Your task to perform on an android device: Set the phone to "Do not disturb". Image 0: 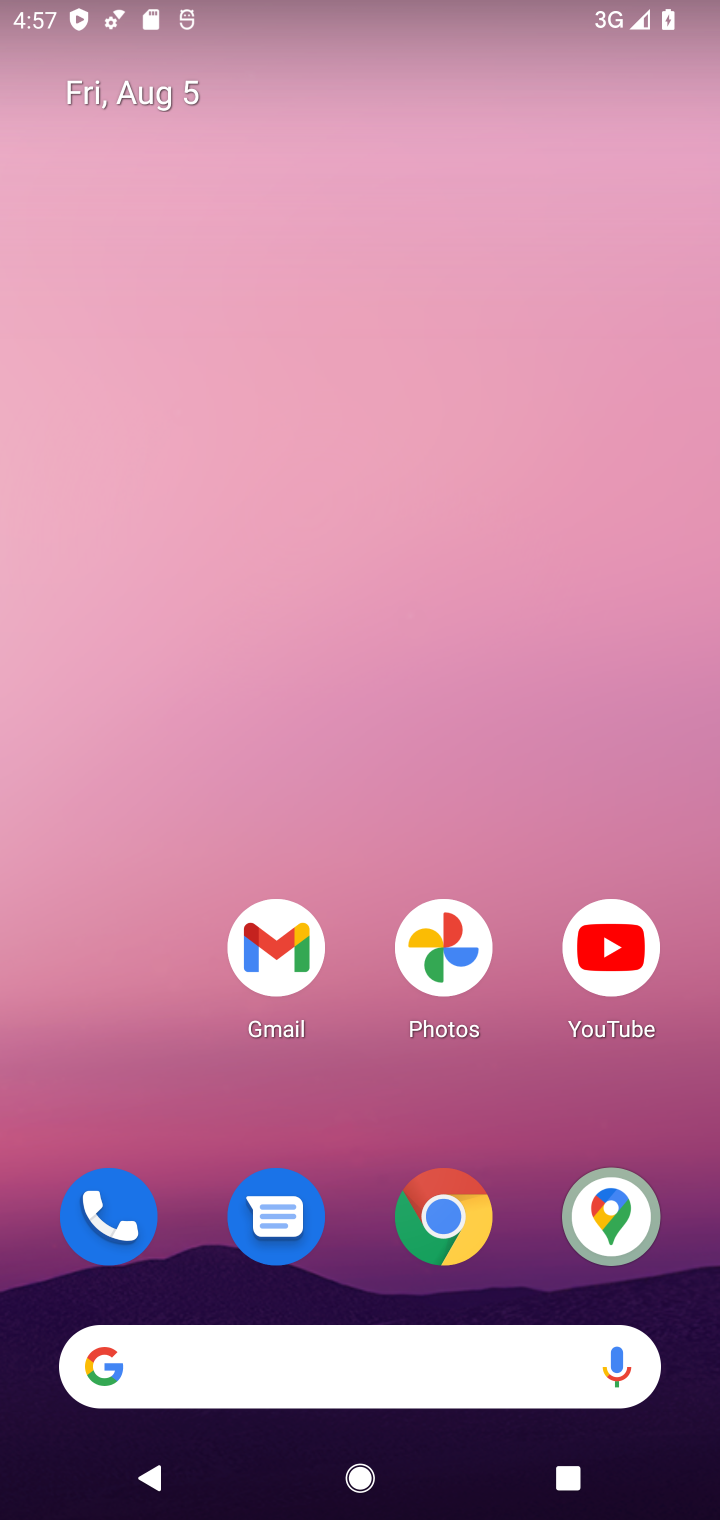
Step 0: drag from (521, 607) to (424, 29)
Your task to perform on an android device: Set the phone to "Do not disturb". Image 1: 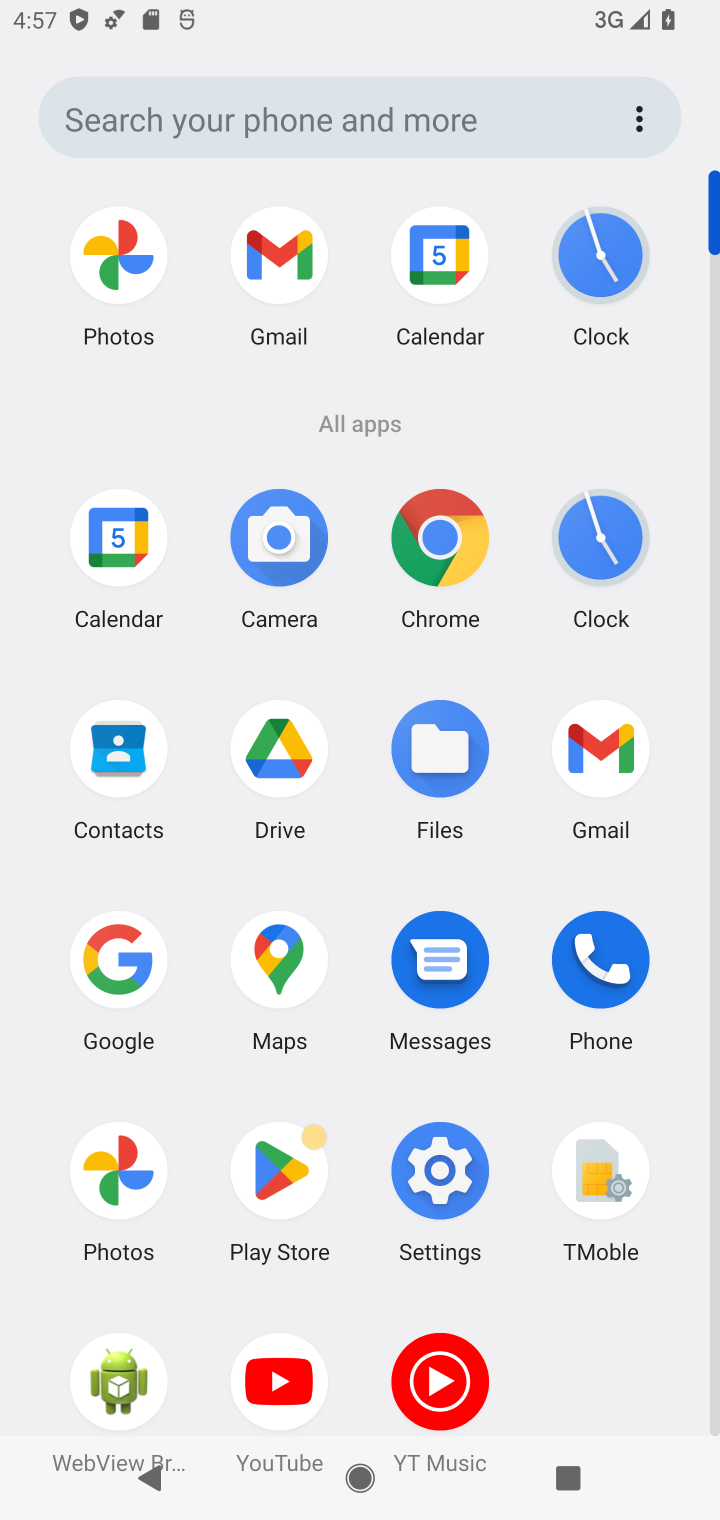
Step 1: click (417, 1172)
Your task to perform on an android device: Set the phone to "Do not disturb". Image 2: 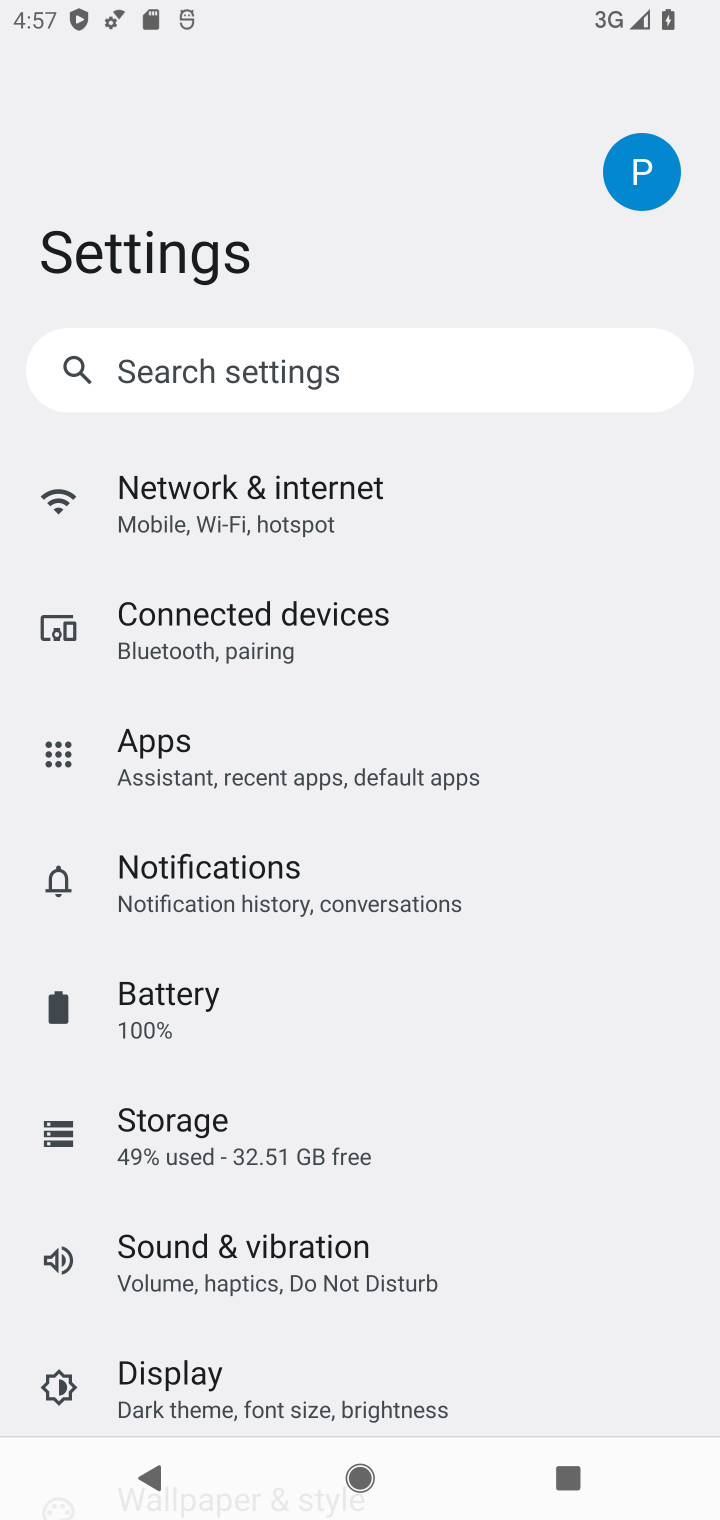
Step 2: click (238, 1262)
Your task to perform on an android device: Set the phone to "Do not disturb". Image 3: 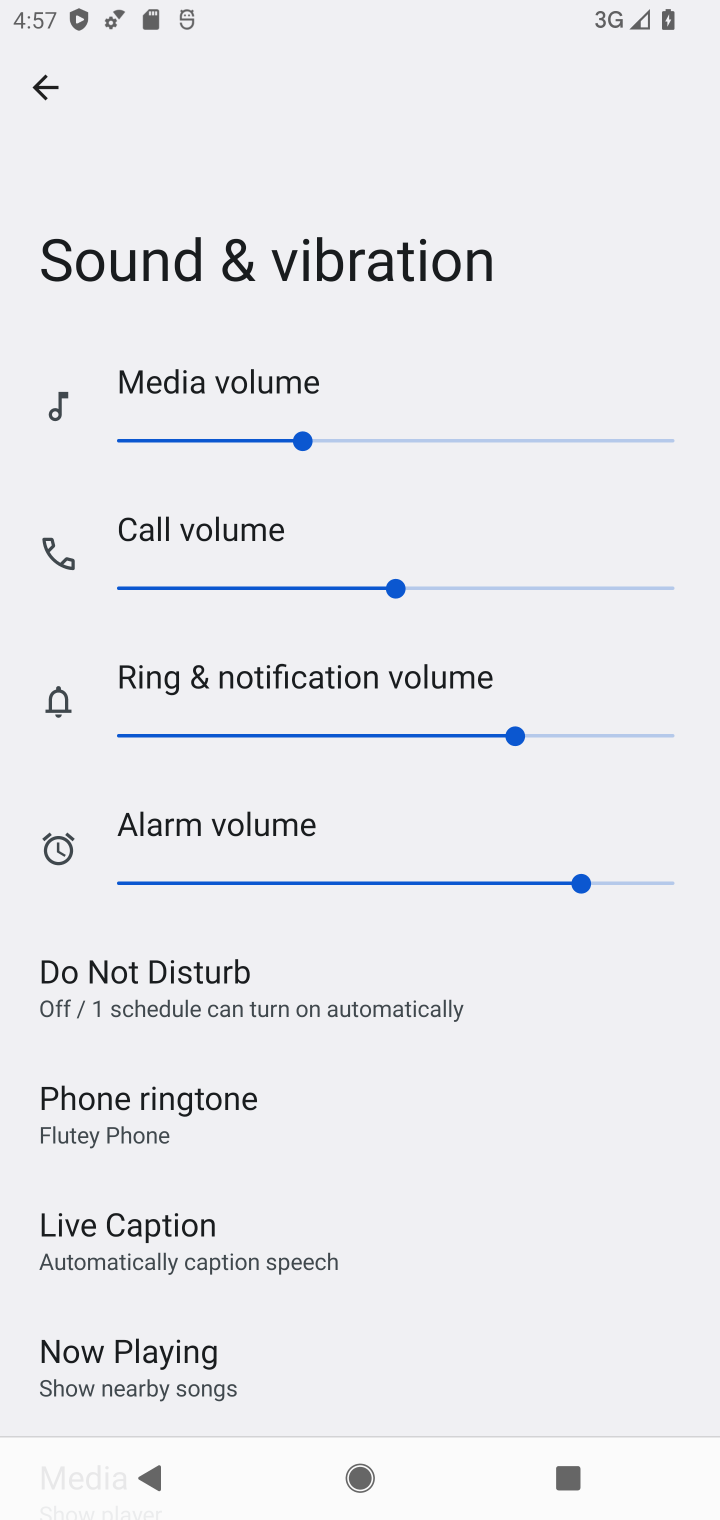
Step 3: click (213, 973)
Your task to perform on an android device: Set the phone to "Do not disturb". Image 4: 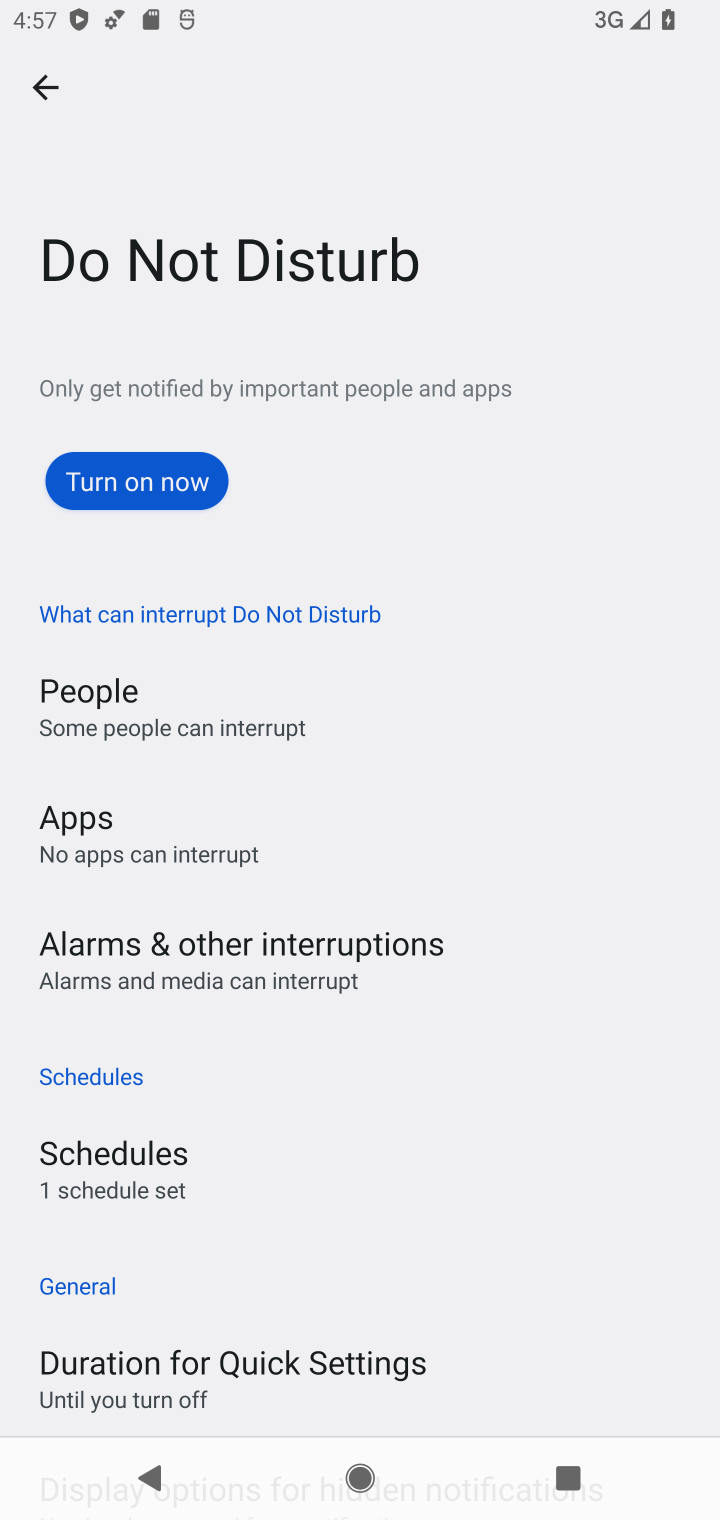
Step 4: click (114, 513)
Your task to perform on an android device: Set the phone to "Do not disturb". Image 5: 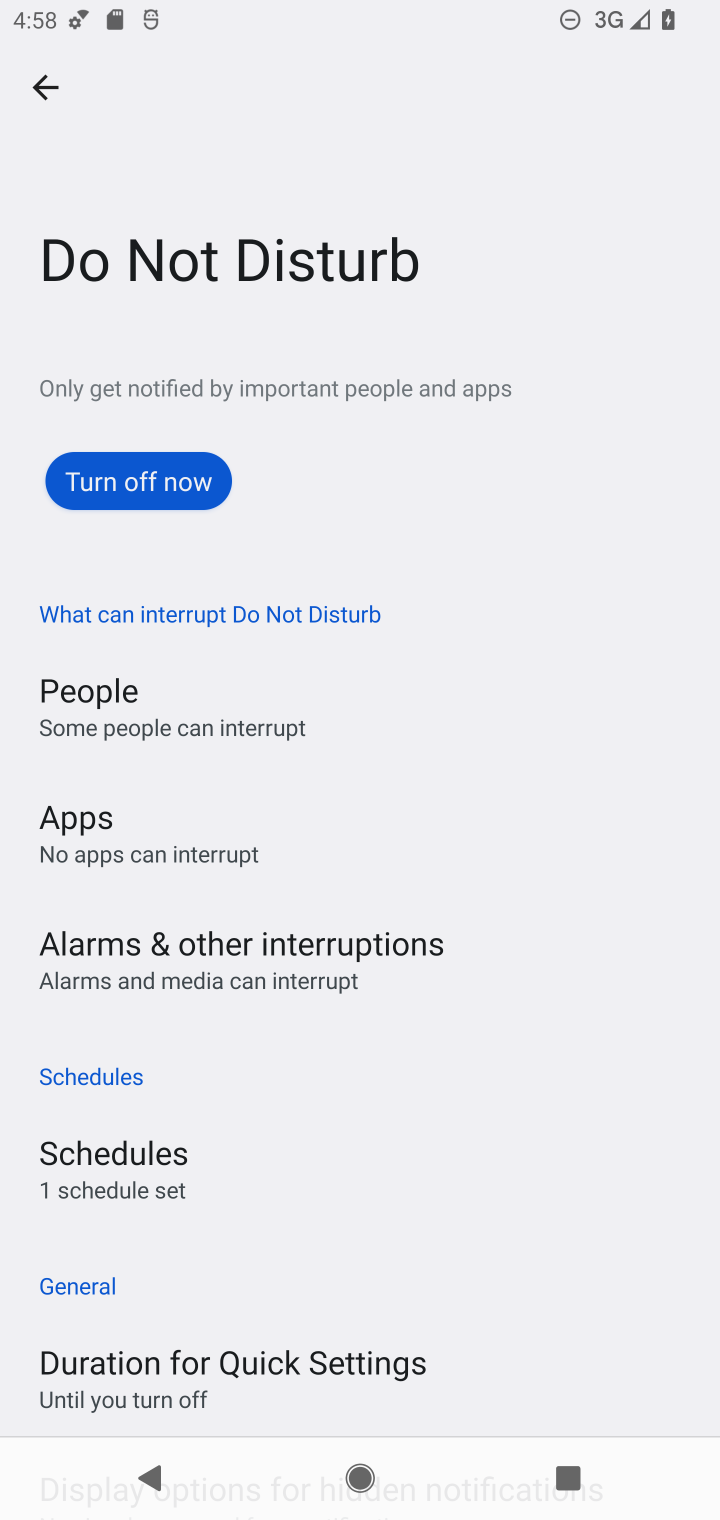
Step 5: task complete